Your task to perform on an android device: open chrome privacy settings Image 0: 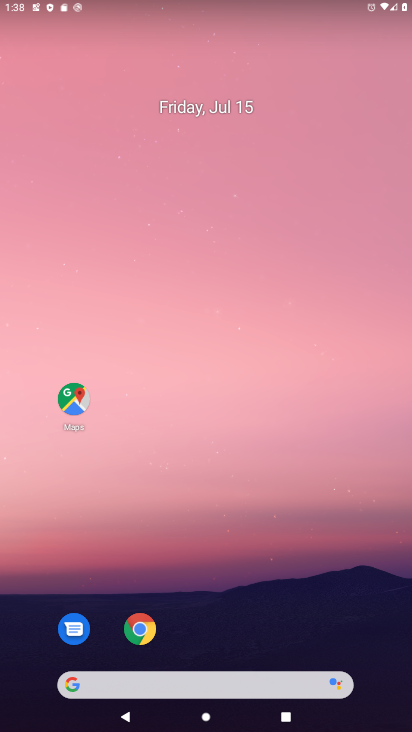
Step 0: drag from (287, 604) to (263, 152)
Your task to perform on an android device: open chrome privacy settings Image 1: 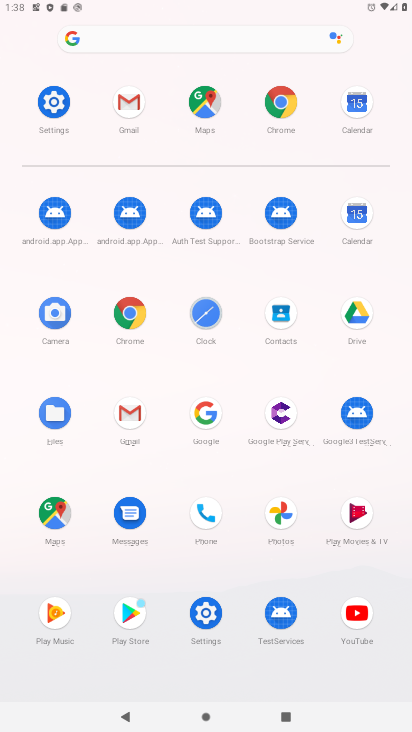
Step 1: click (126, 315)
Your task to perform on an android device: open chrome privacy settings Image 2: 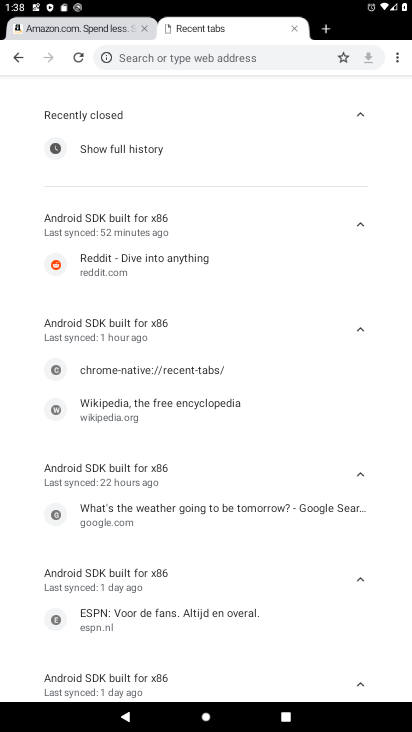
Step 2: drag from (396, 54) to (301, 293)
Your task to perform on an android device: open chrome privacy settings Image 3: 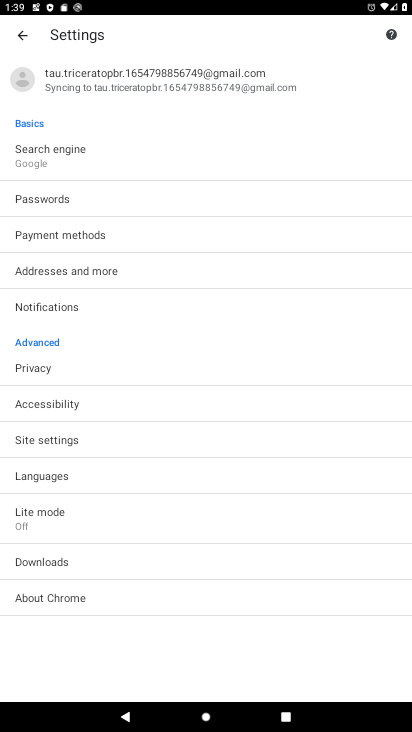
Step 3: click (43, 367)
Your task to perform on an android device: open chrome privacy settings Image 4: 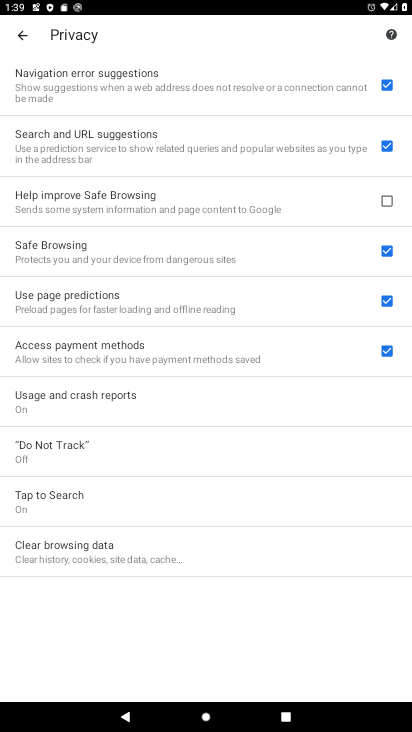
Step 4: task complete